Your task to perform on an android device: Open the calendar app, open the side menu, and click the "Day" option Image 0: 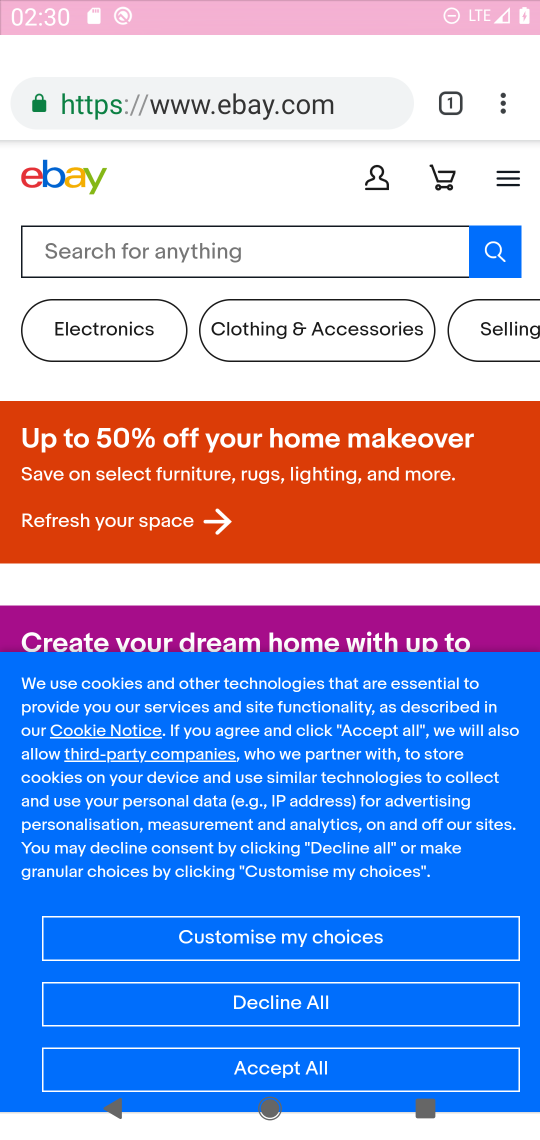
Step 0: press home button
Your task to perform on an android device: Open the calendar app, open the side menu, and click the "Day" option Image 1: 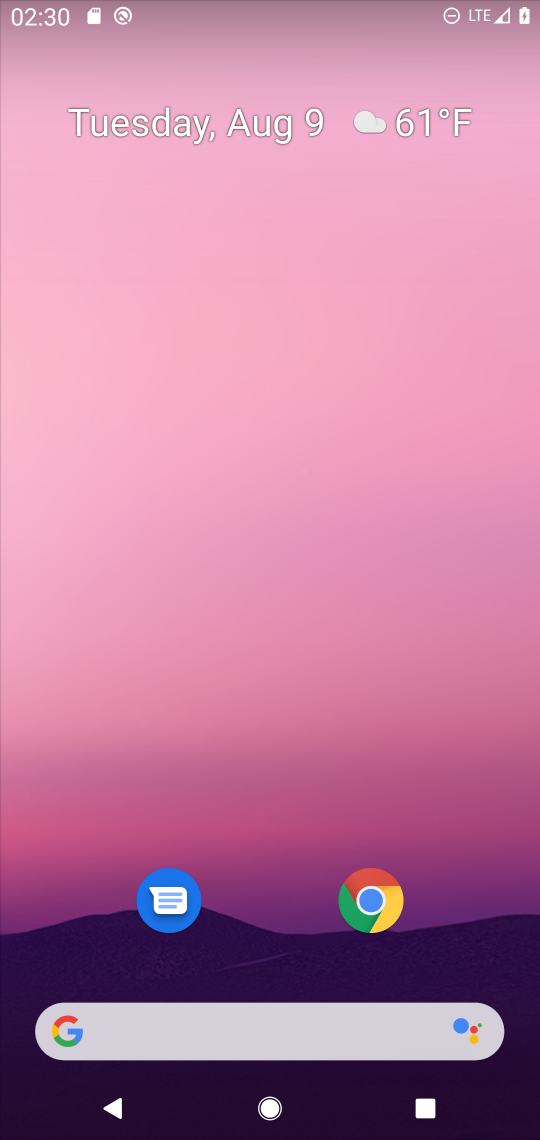
Step 1: drag from (481, 917) to (482, 211)
Your task to perform on an android device: Open the calendar app, open the side menu, and click the "Day" option Image 2: 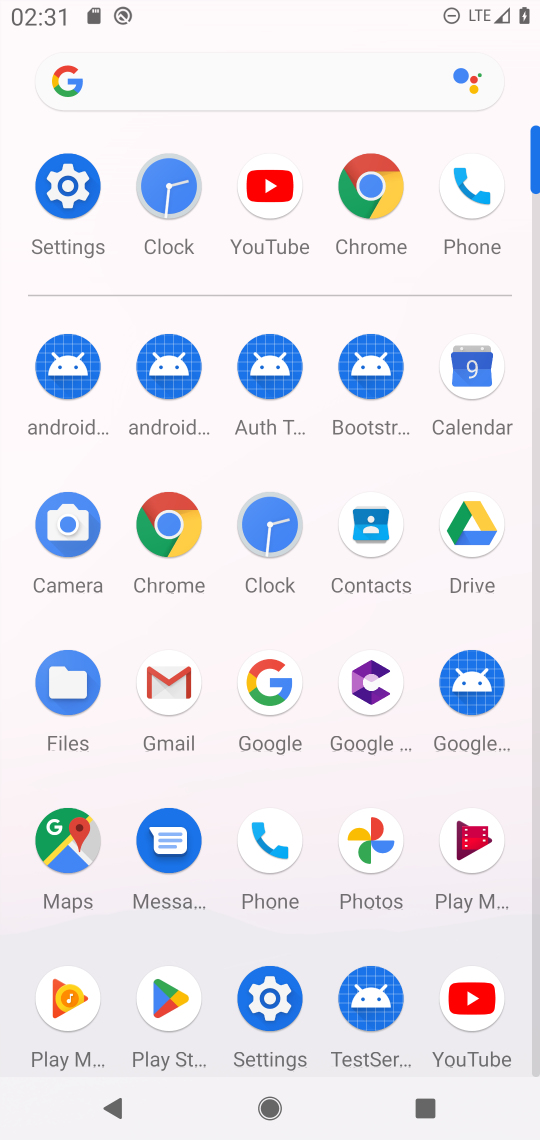
Step 2: click (75, 197)
Your task to perform on an android device: Open the calendar app, open the side menu, and click the "Day" option Image 3: 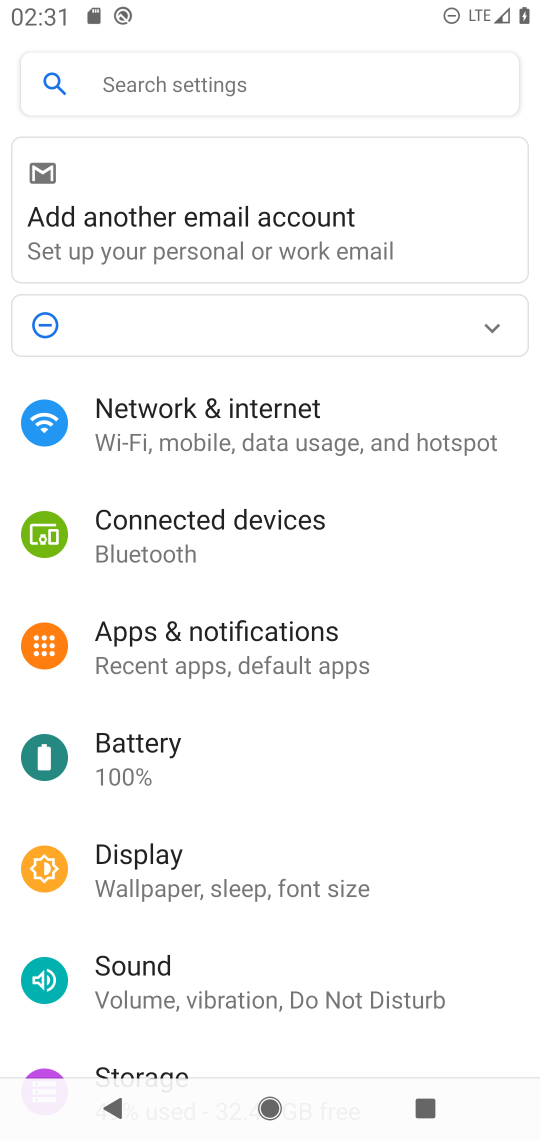
Step 3: drag from (441, 732) to (443, 506)
Your task to perform on an android device: Open the calendar app, open the side menu, and click the "Day" option Image 4: 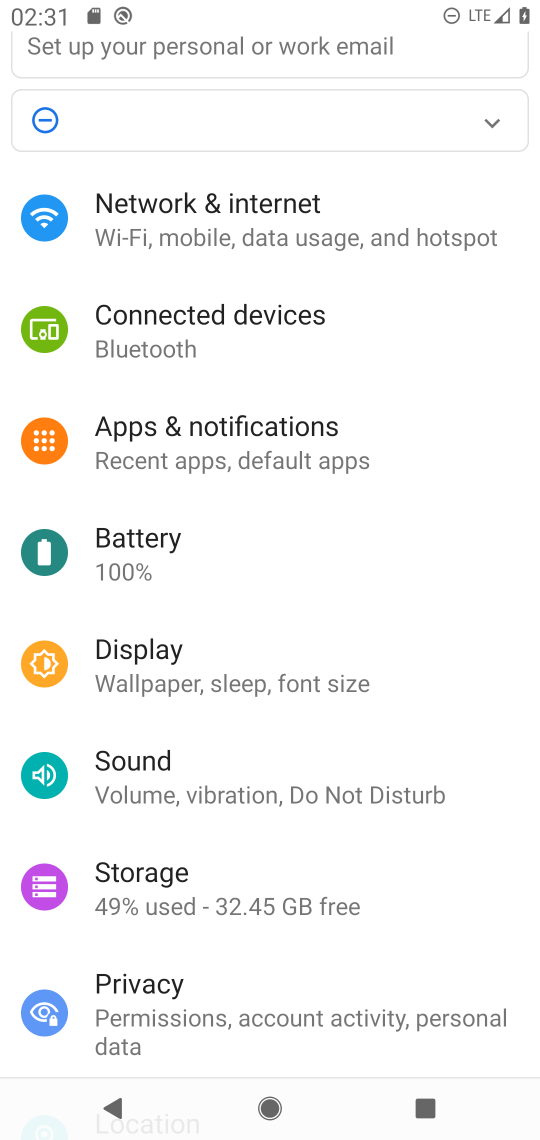
Step 4: press home button
Your task to perform on an android device: Open the calendar app, open the side menu, and click the "Day" option Image 5: 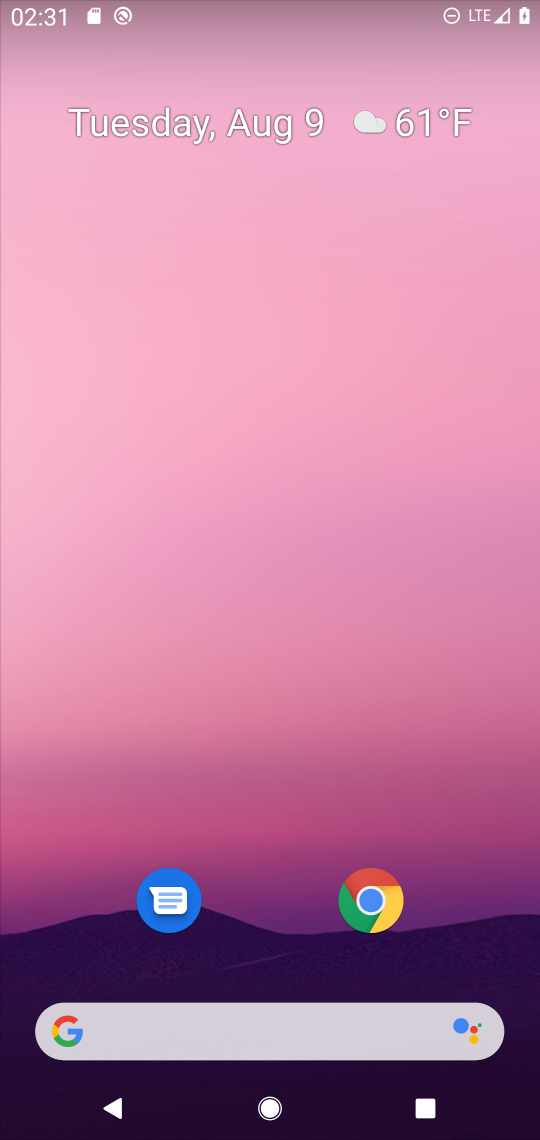
Step 5: drag from (455, 855) to (487, 176)
Your task to perform on an android device: Open the calendar app, open the side menu, and click the "Day" option Image 6: 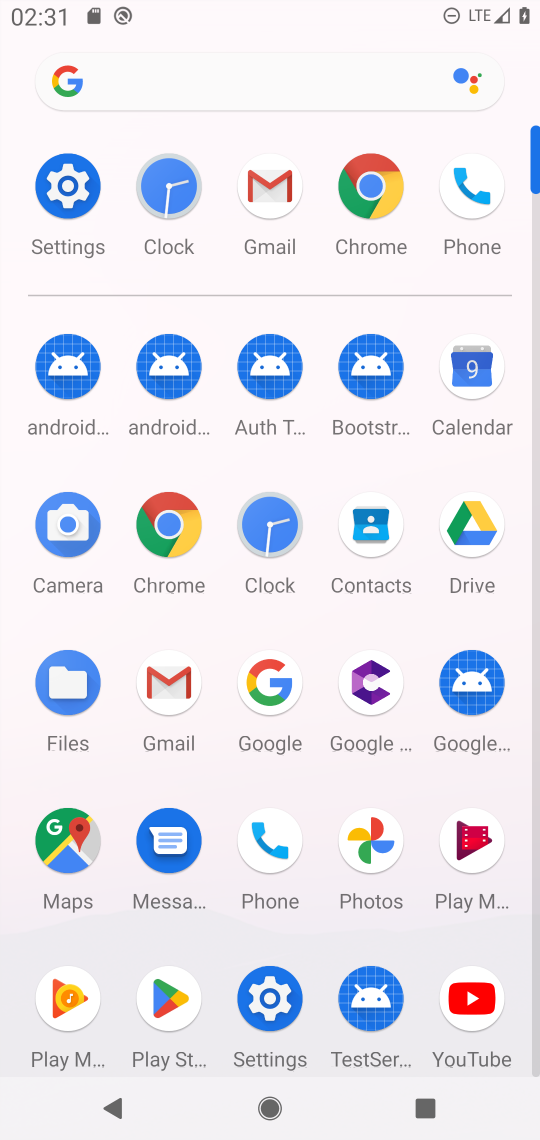
Step 6: click (471, 366)
Your task to perform on an android device: Open the calendar app, open the side menu, and click the "Day" option Image 7: 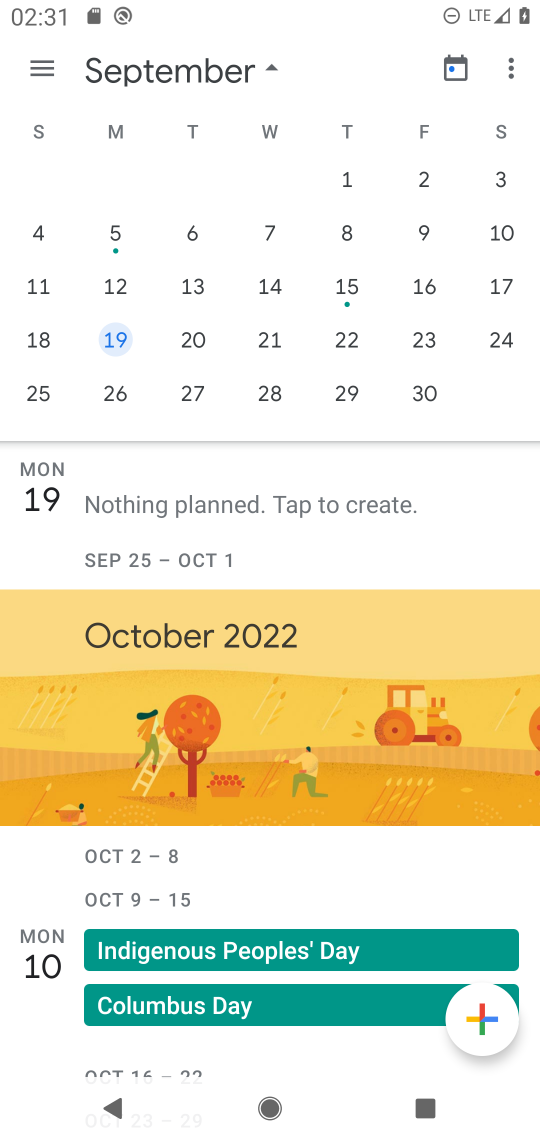
Step 7: click (39, 63)
Your task to perform on an android device: Open the calendar app, open the side menu, and click the "Day" option Image 8: 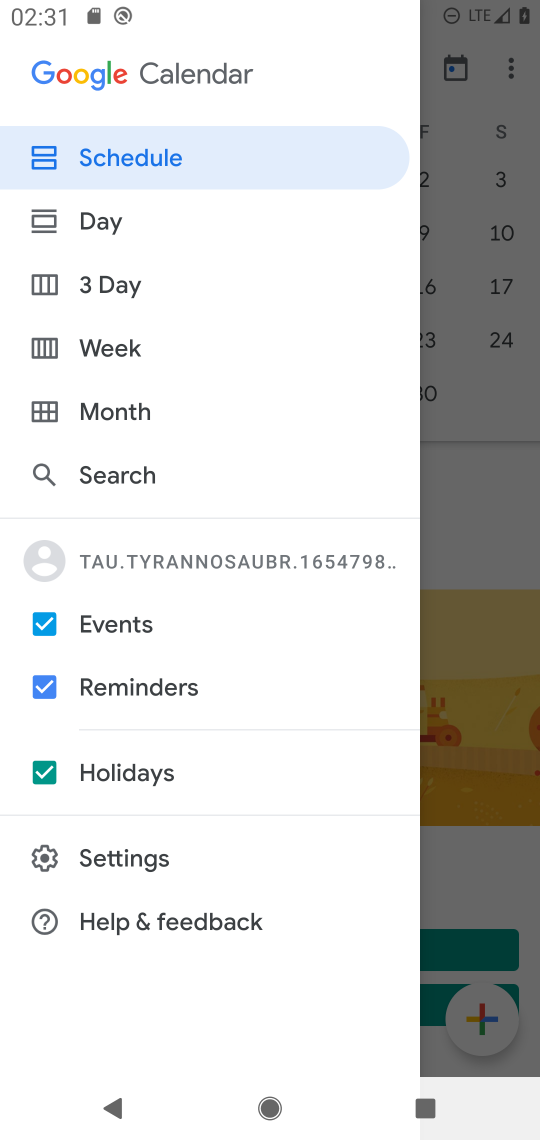
Step 8: click (79, 224)
Your task to perform on an android device: Open the calendar app, open the side menu, and click the "Day" option Image 9: 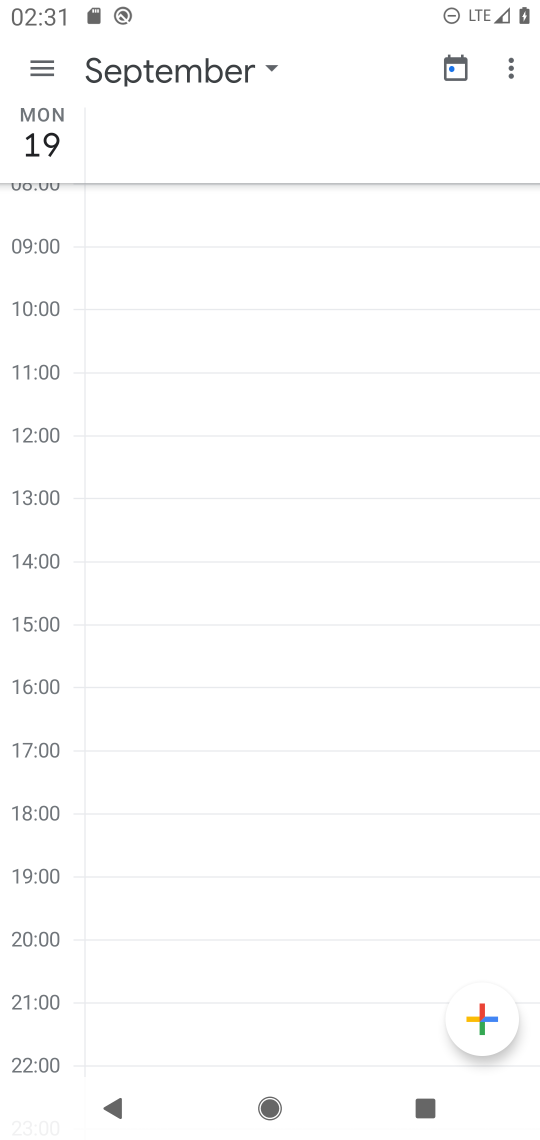
Step 9: task complete